Your task to perform on an android device: Find coffee shops on Maps Image 0: 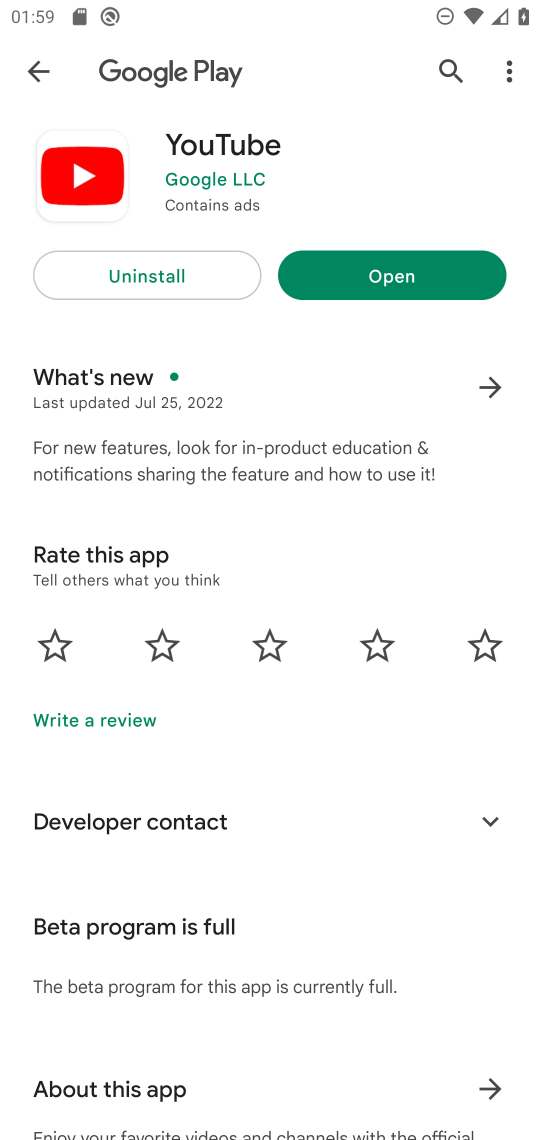
Step 0: press home button
Your task to perform on an android device: Find coffee shops on Maps Image 1: 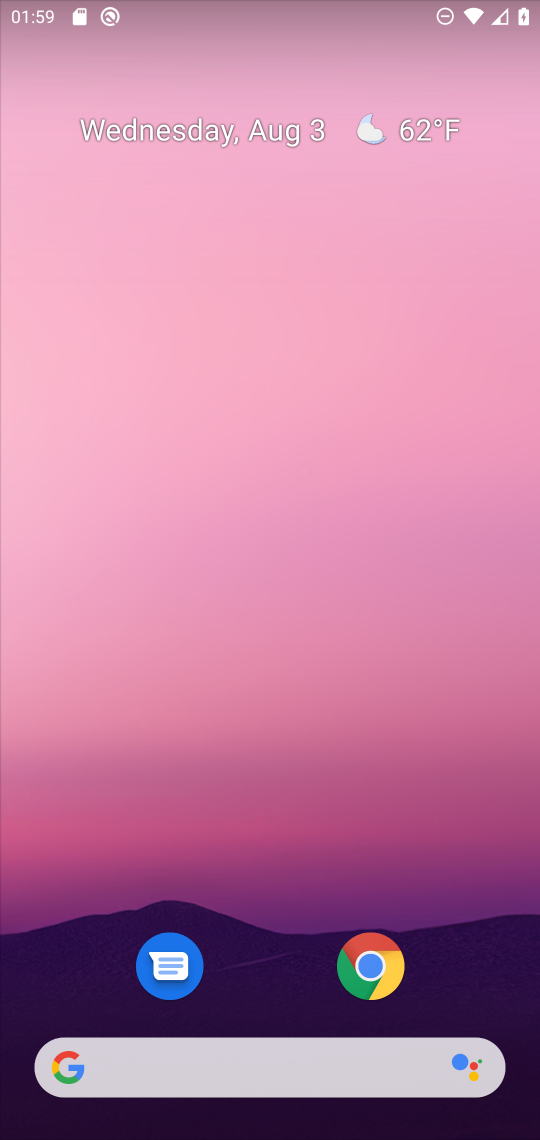
Step 1: drag from (268, 932) to (266, 342)
Your task to perform on an android device: Find coffee shops on Maps Image 2: 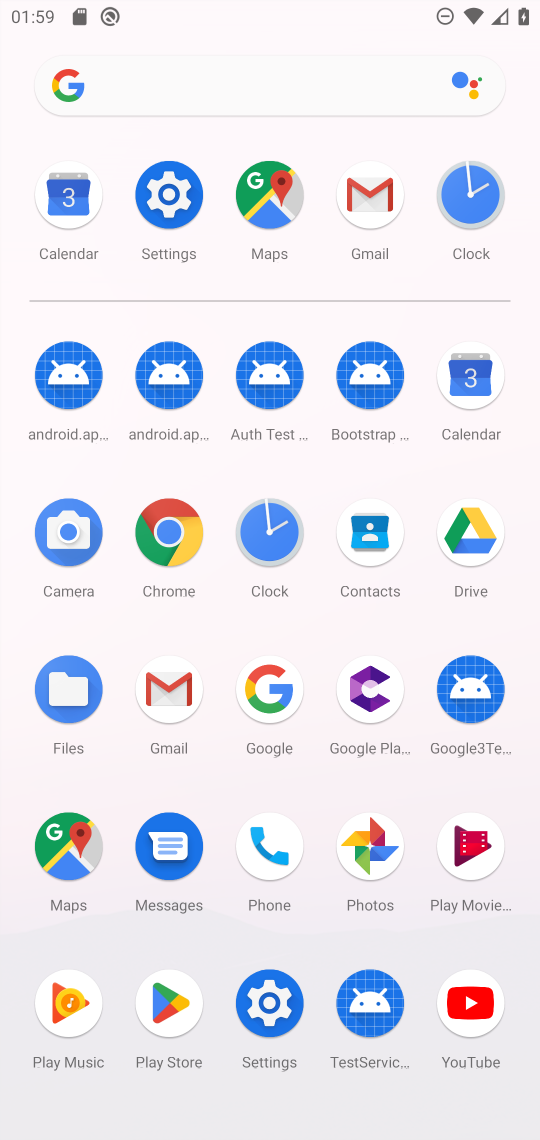
Step 2: click (79, 850)
Your task to perform on an android device: Find coffee shops on Maps Image 3: 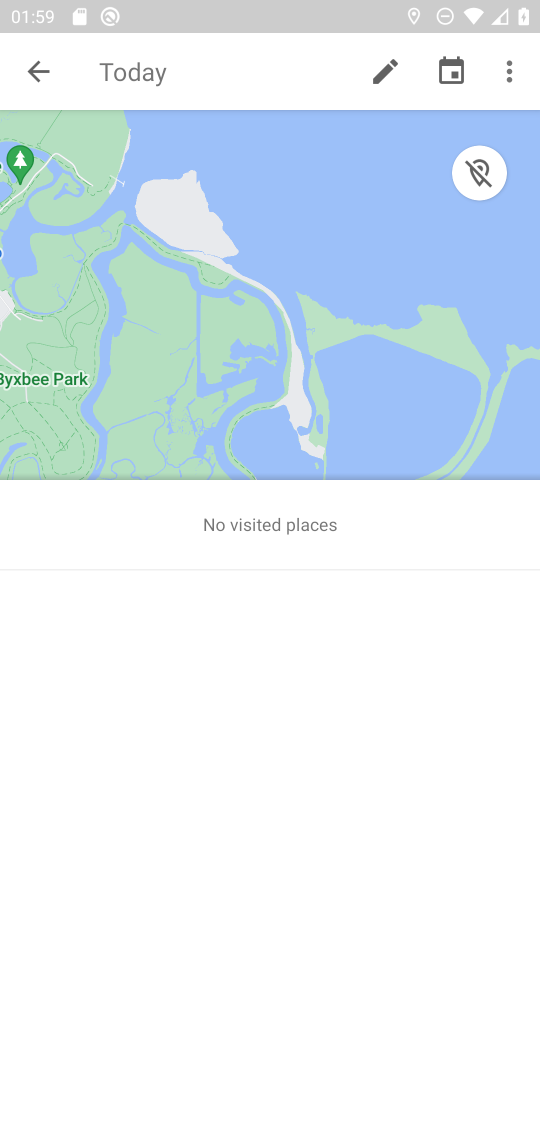
Step 3: click (30, 76)
Your task to perform on an android device: Find coffee shops on Maps Image 4: 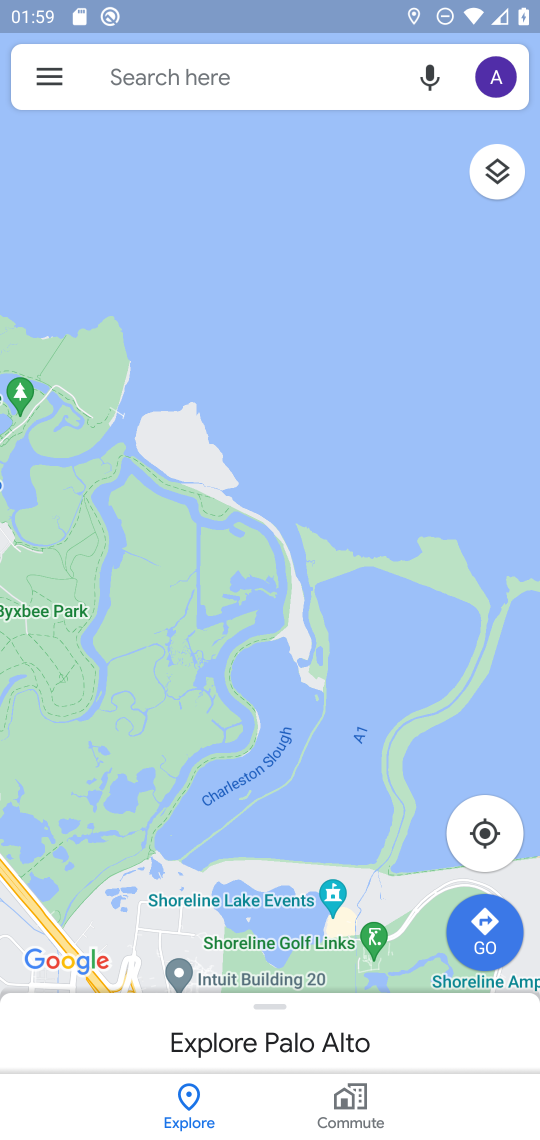
Step 4: click (219, 85)
Your task to perform on an android device: Find coffee shops on Maps Image 5: 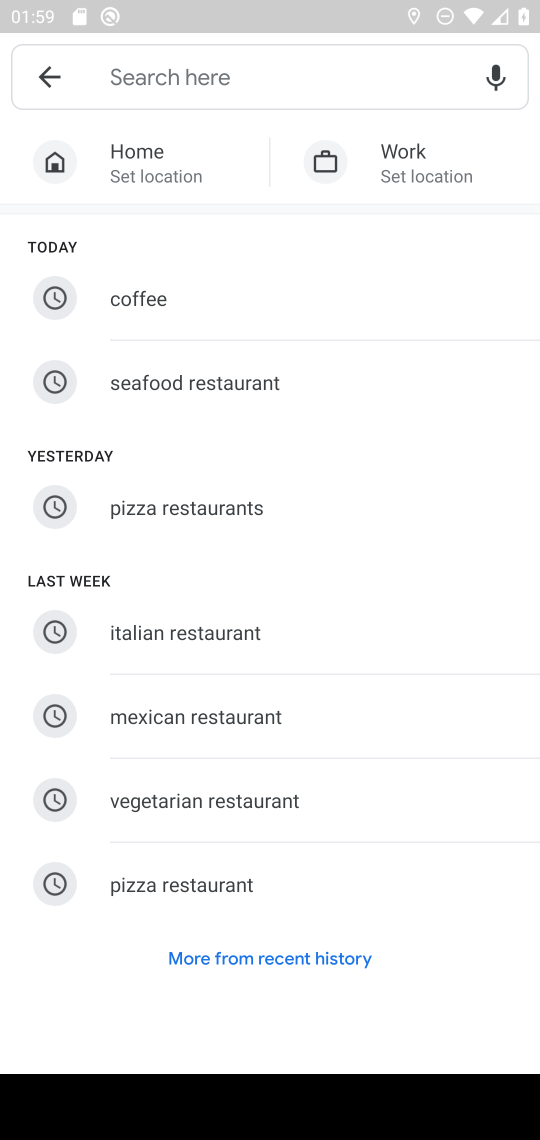
Step 5: type "coffee shops"
Your task to perform on an android device: Find coffee shops on Maps Image 6: 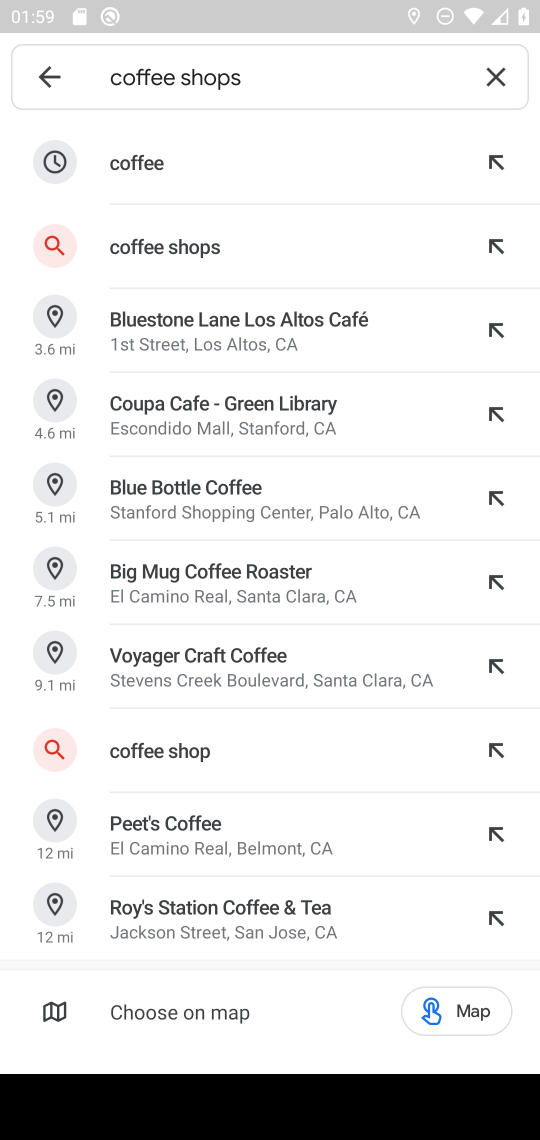
Step 6: click (164, 243)
Your task to perform on an android device: Find coffee shops on Maps Image 7: 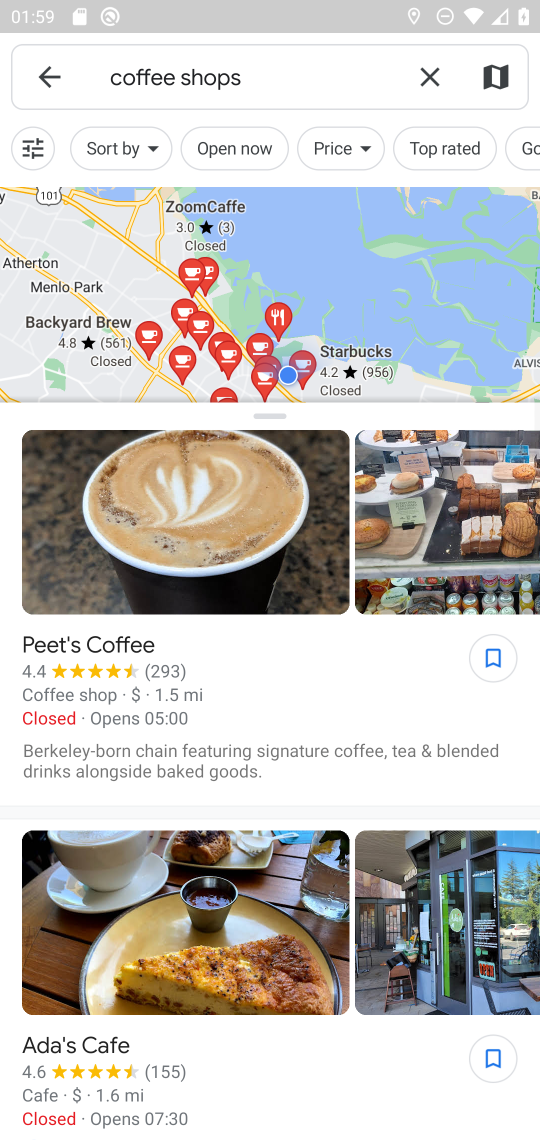
Step 7: task complete